Your task to perform on an android device: change the clock display to analog Image 0: 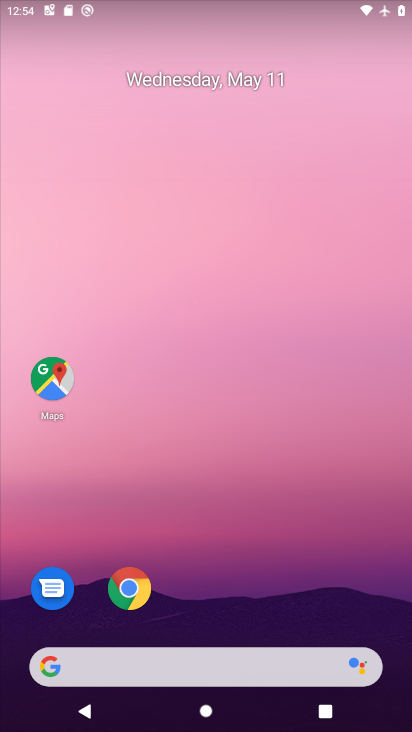
Step 0: drag from (228, 641) to (249, 113)
Your task to perform on an android device: change the clock display to analog Image 1: 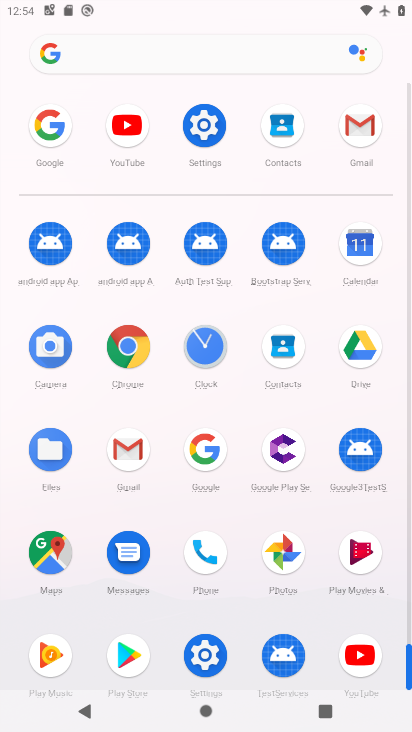
Step 1: click (210, 356)
Your task to perform on an android device: change the clock display to analog Image 2: 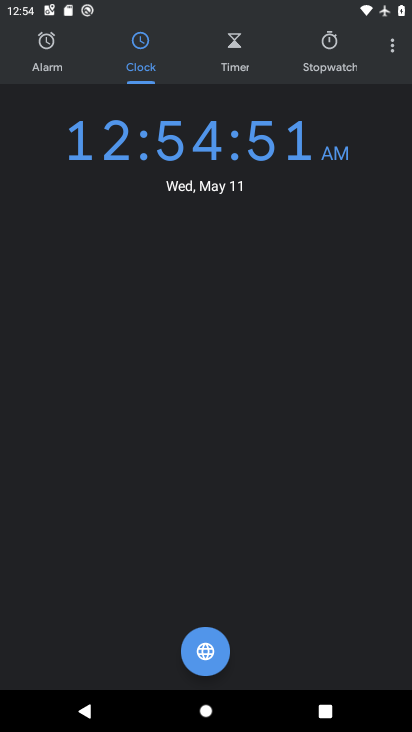
Step 2: click (396, 39)
Your task to perform on an android device: change the clock display to analog Image 3: 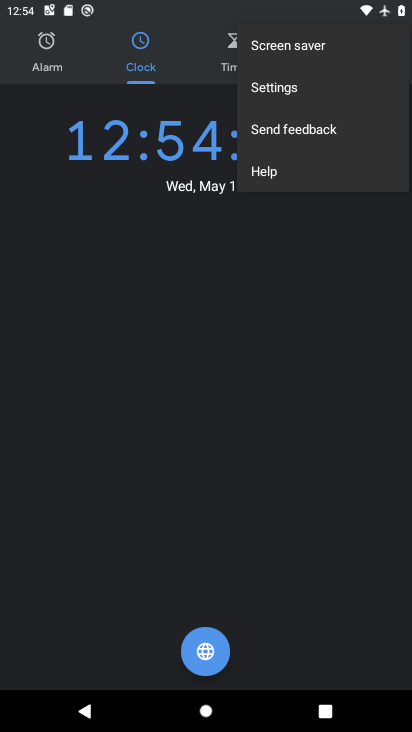
Step 3: click (296, 95)
Your task to perform on an android device: change the clock display to analog Image 4: 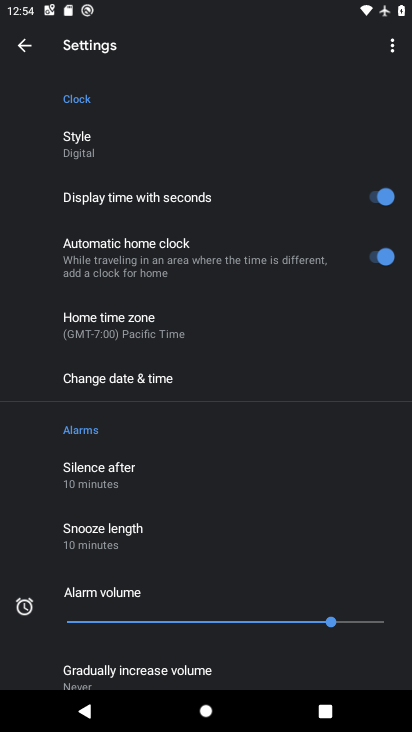
Step 4: click (81, 150)
Your task to perform on an android device: change the clock display to analog Image 5: 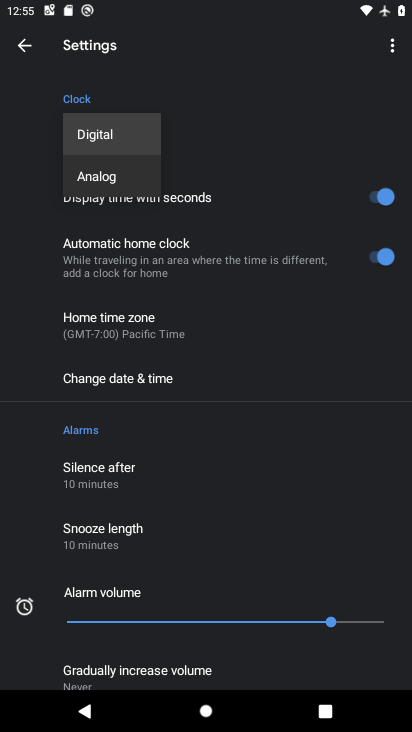
Step 5: click (77, 172)
Your task to perform on an android device: change the clock display to analog Image 6: 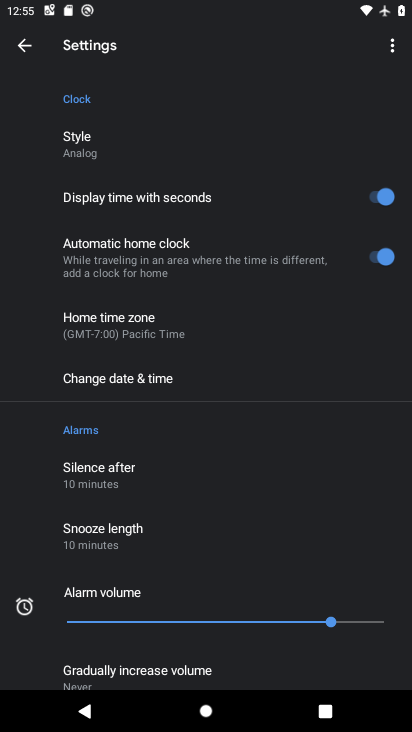
Step 6: task complete